Your task to perform on an android device: Go to accessibility settings Image 0: 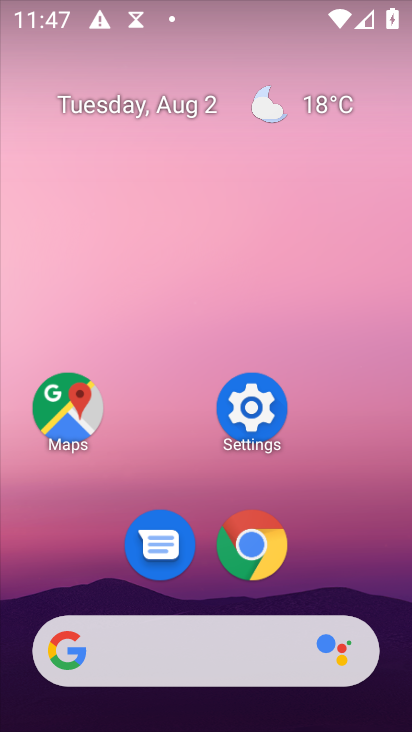
Step 0: press home button
Your task to perform on an android device: Go to accessibility settings Image 1: 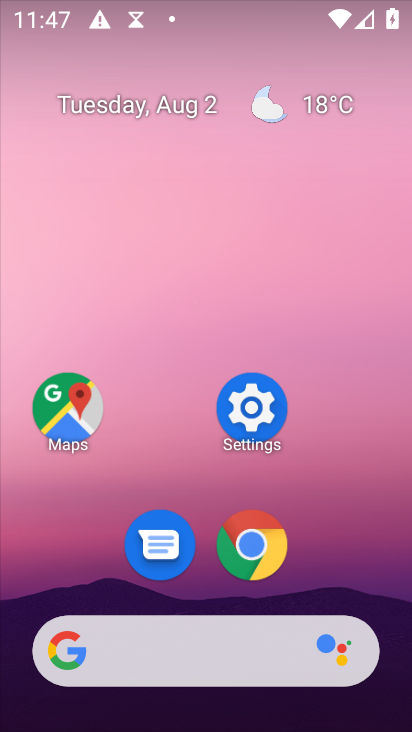
Step 1: click (245, 407)
Your task to perform on an android device: Go to accessibility settings Image 2: 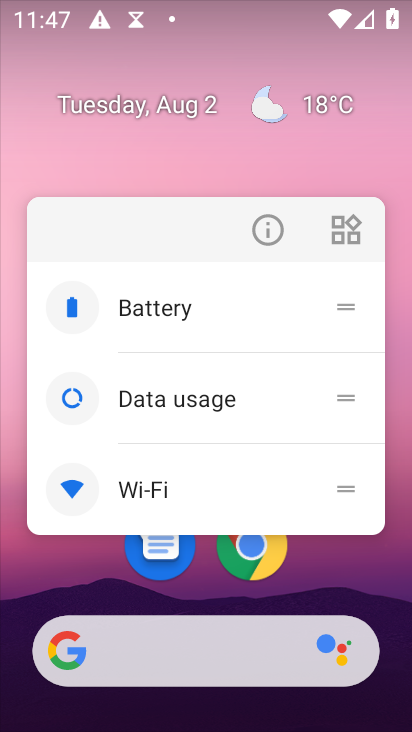
Step 2: click (374, 562)
Your task to perform on an android device: Go to accessibility settings Image 3: 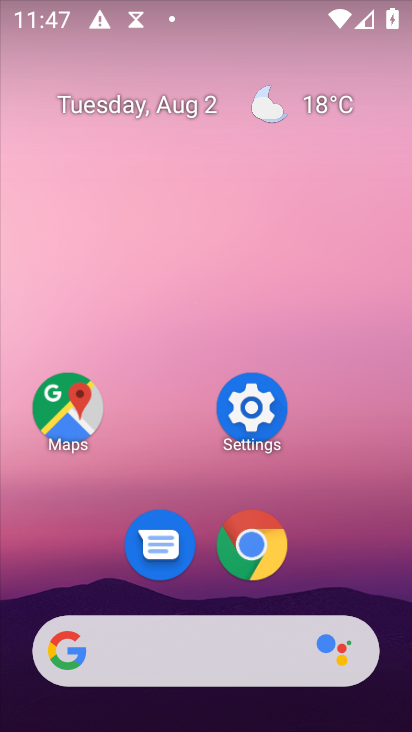
Step 3: click (245, 413)
Your task to perform on an android device: Go to accessibility settings Image 4: 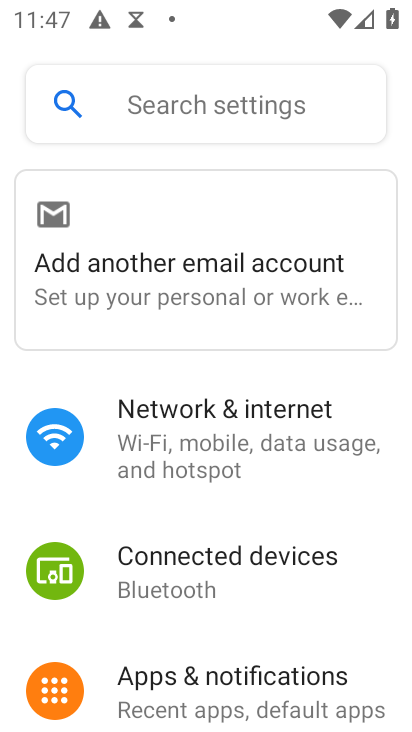
Step 4: drag from (235, 657) to (385, 43)
Your task to perform on an android device: Go to accessibility settings Image 5: 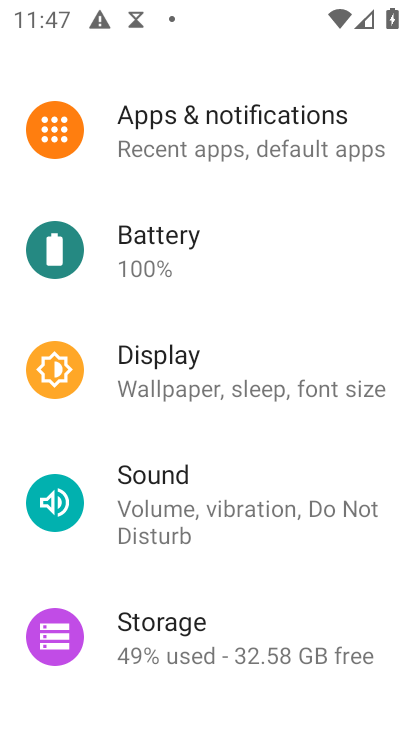
Step 5: drag from (222, 675) to (363, 102)
Your task to perform on an android device: Go to accessibility settings Image 6: 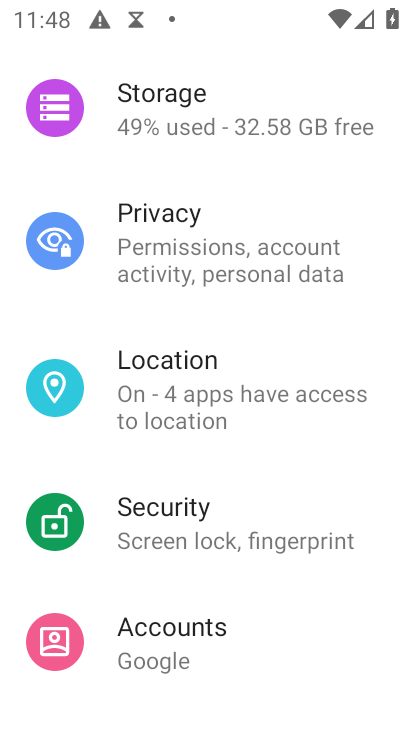
Step 6: drag from (242, 672) to (284, 43)
Your task to perform on an android device: Go to accessibility settings Image 7: 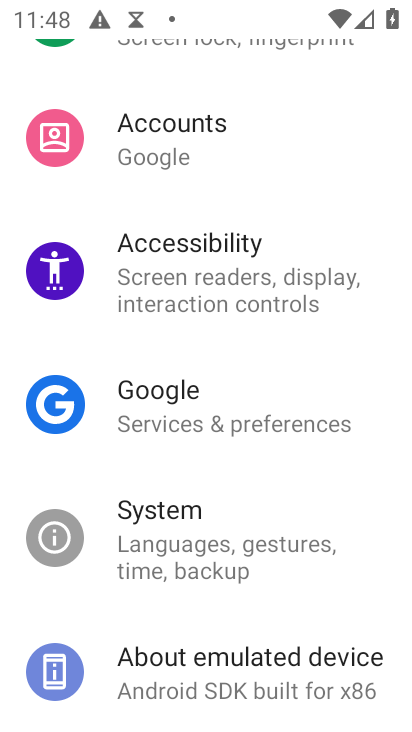
Step 7: click (220, 278)
Your task to perform on an android device: Go to accessibility settings Image 8: 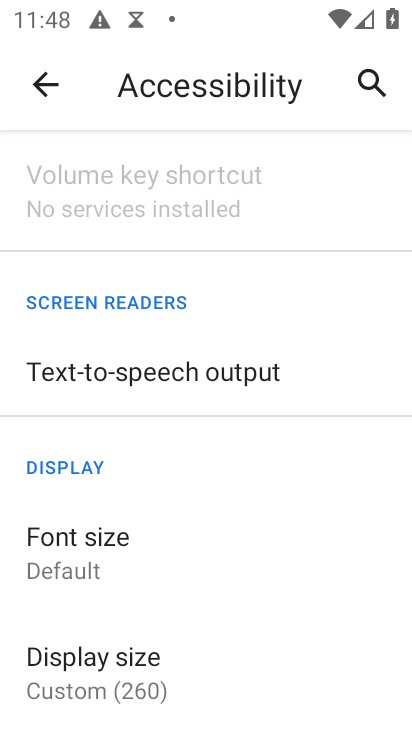
Step 8: task complete